Your task to perform on an android device: change the clock display to digital Image 0: 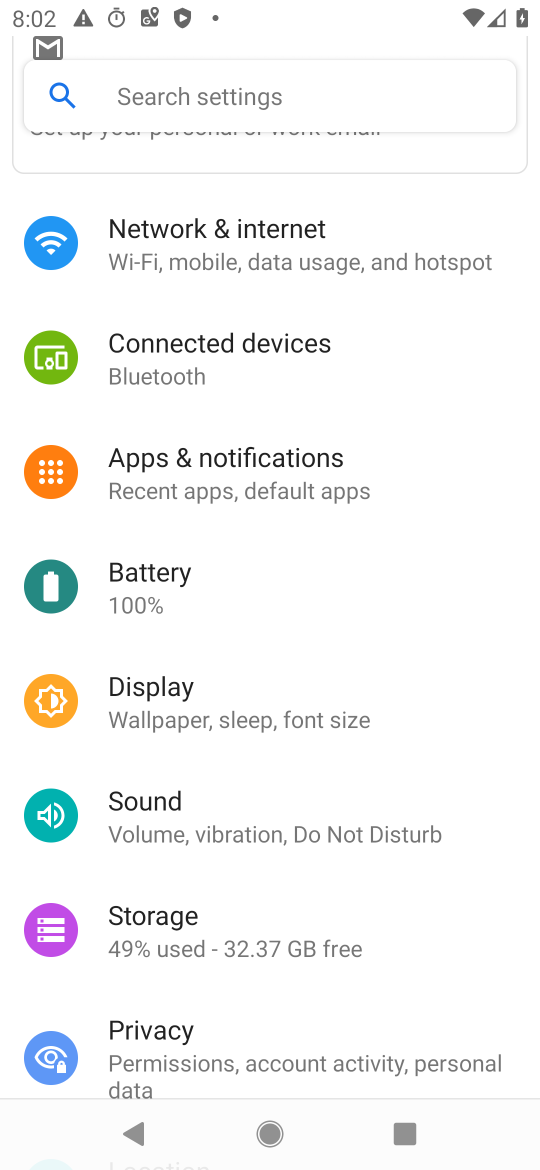
Step 0: press home button
Your task to perform on an android device: change the clock display to digital Image 1: 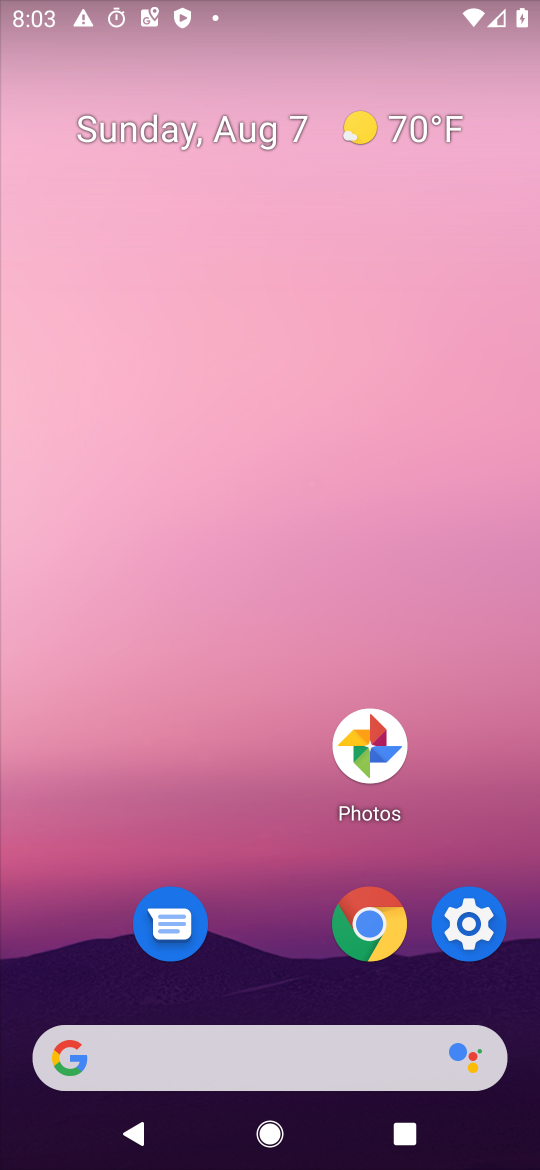
Step 1: drag from (346, 1013) to (487, 310)
Your task to perform on an android device: change the clock display to digital Image 2: 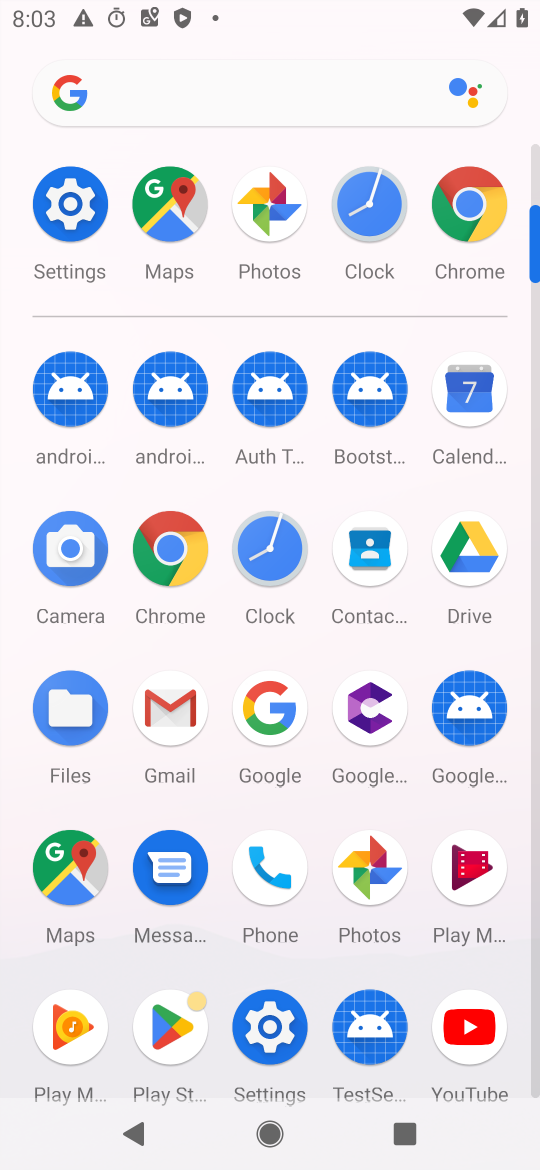
Step 2: click (282, 554)
Your task to perform on an android device: change the clock display to digital Image 3: 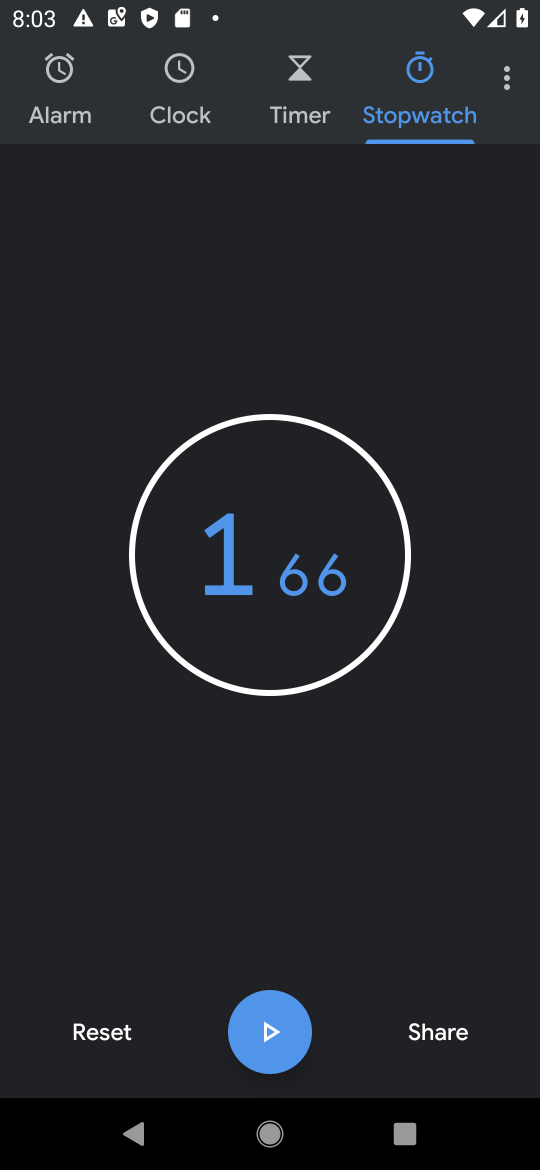
Step 3: click (488, 79)
Your task to perform on an android device: change the clock display to digital Image 4: 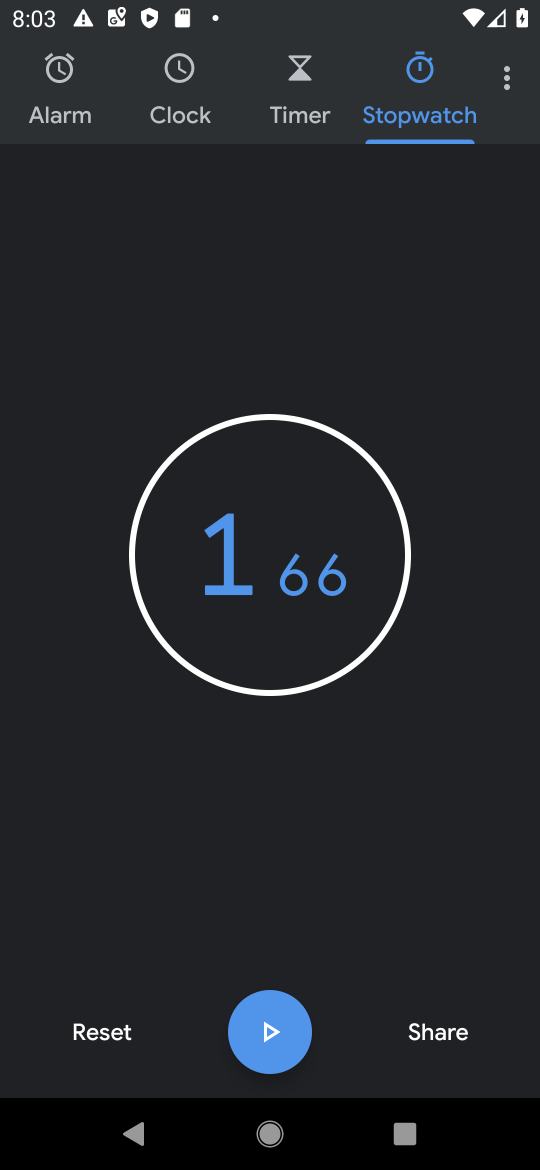
Step 4: click (513, 82)
Your task to perform on an android device: change the clock display to digital Image 5: 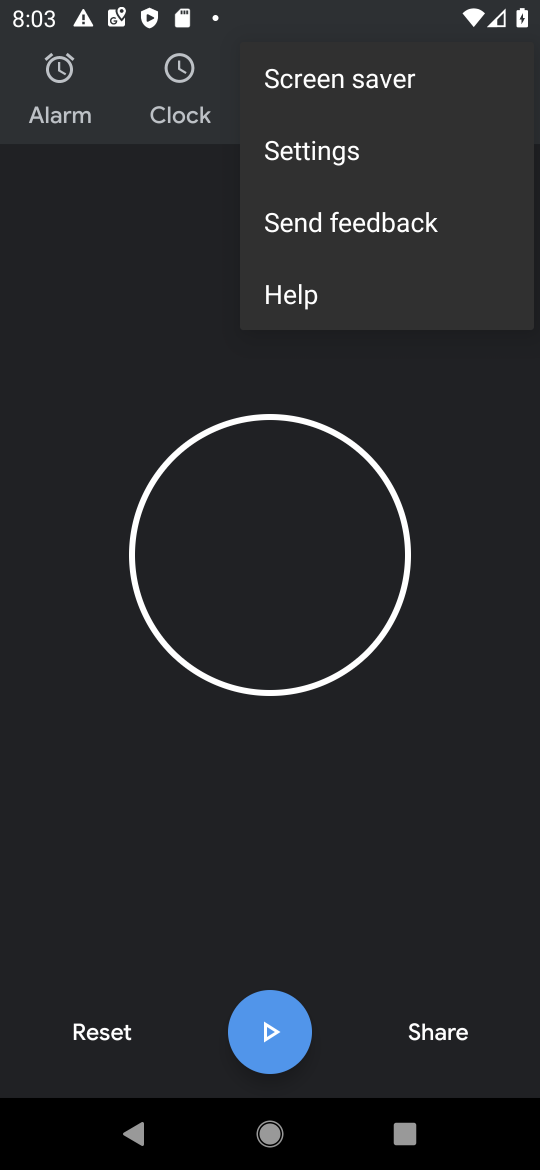
Step 5: click (335, 160)
Your task to perform on an android device: change the clock display to digital Image 6: 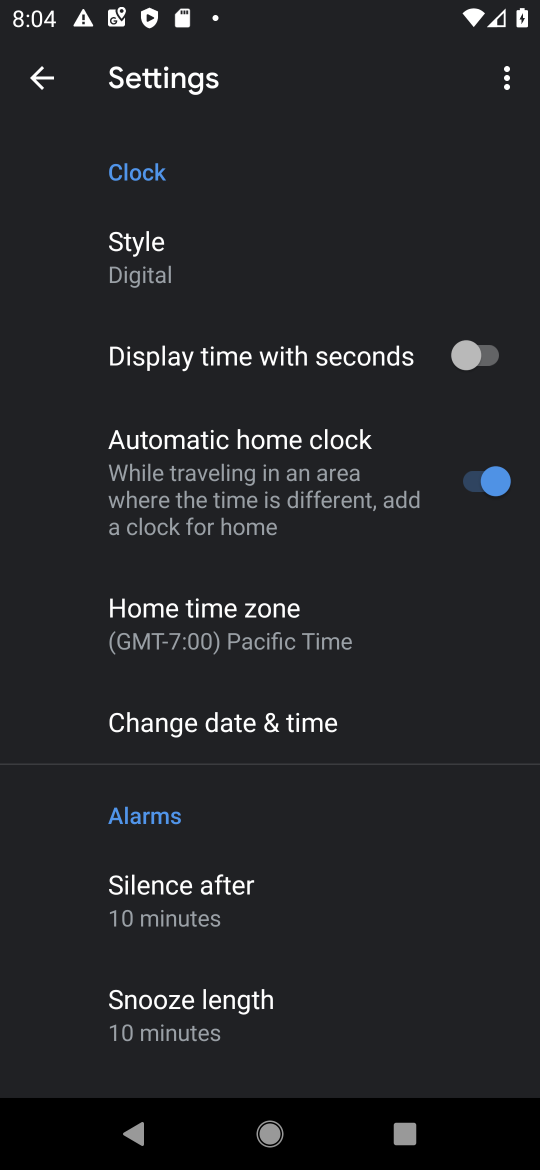
Step 6: task complete